Your task to perform on an android device: What is the news today? Image 0: 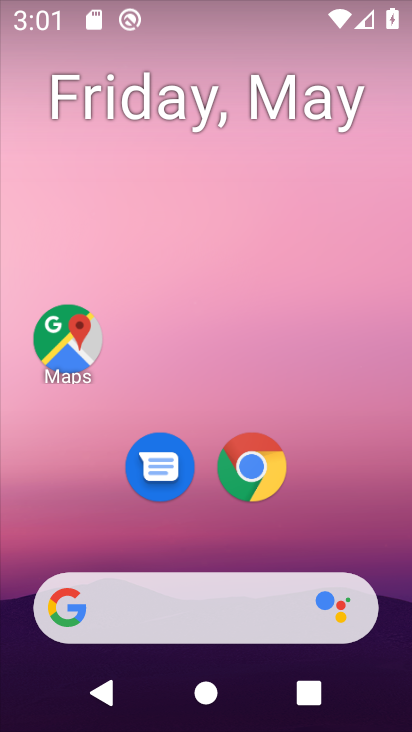
Step 0: drag from (283, 269) to (215, 44)
Your task to perform on an android device: What is the news today? Image 1: 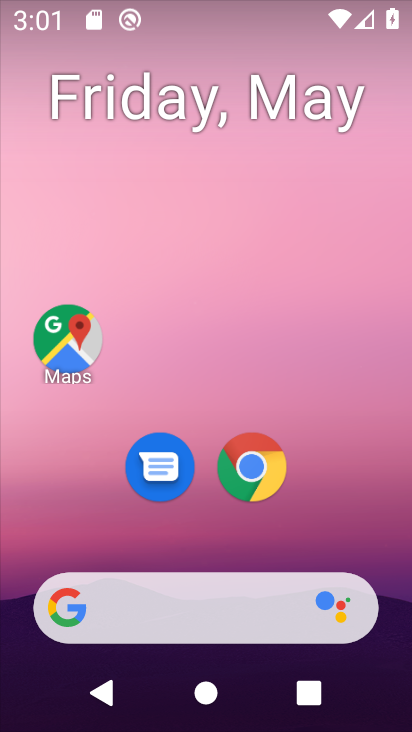
Step 1: drag from (321, 410) to (225, 39)
Your task to perform on an android device: What is the news today? Image 2: 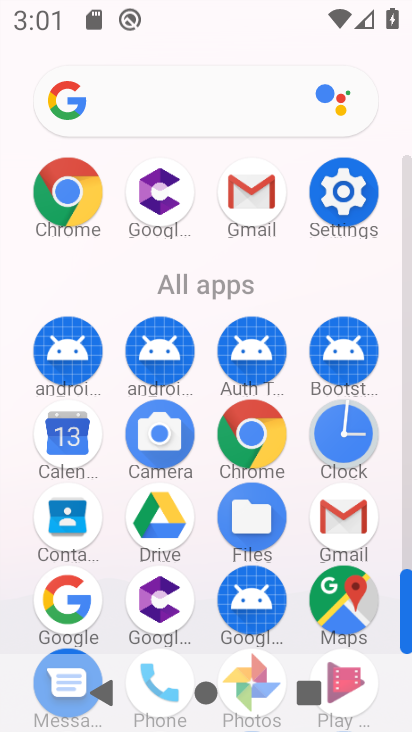
Step 2: click (71, 602)
Your task to perform on an android device: What is the news today? Image 3: 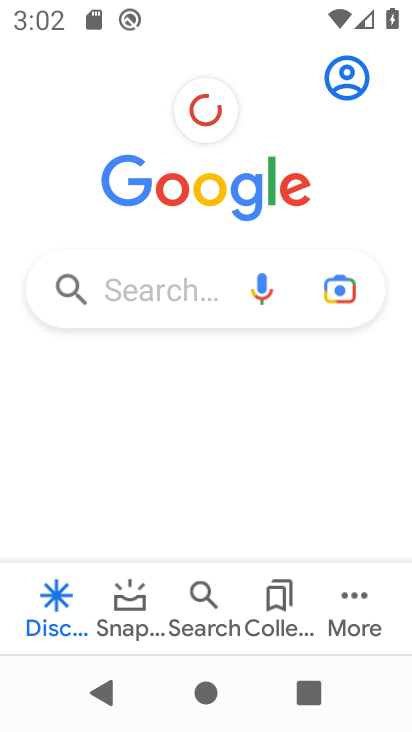
Step 3: click (171, 289)
Your task to perform on an android device: What is the news today? Image 4: 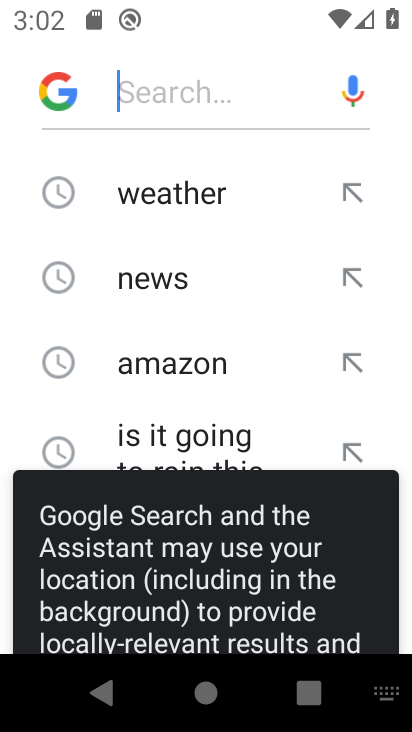
Step 4: click (157, 268)
Your task to perform on an android device: What is the news today? Image 5: 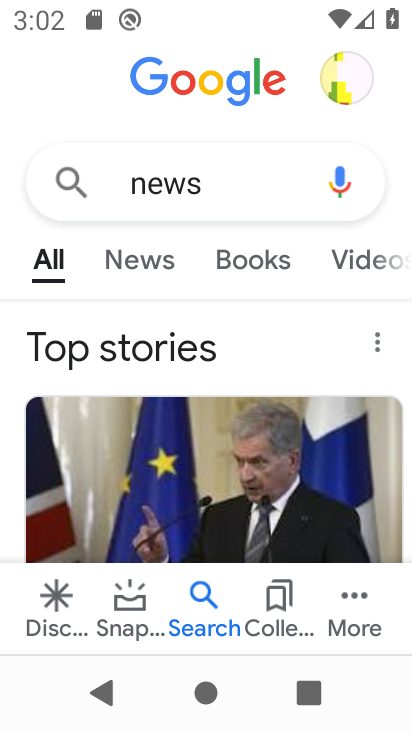
Step 5: task complete